Your task to perform on an android device: turn off improve location accuracy Image 0: 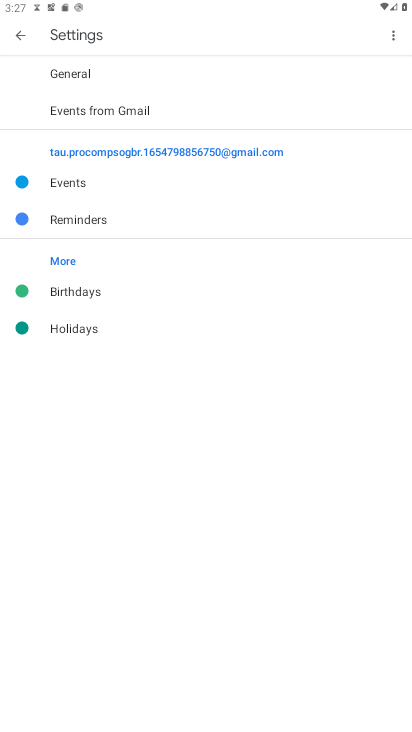
Step 0: press home button
Your task to perform on an android device: turn off improve location accuracy Image 1: 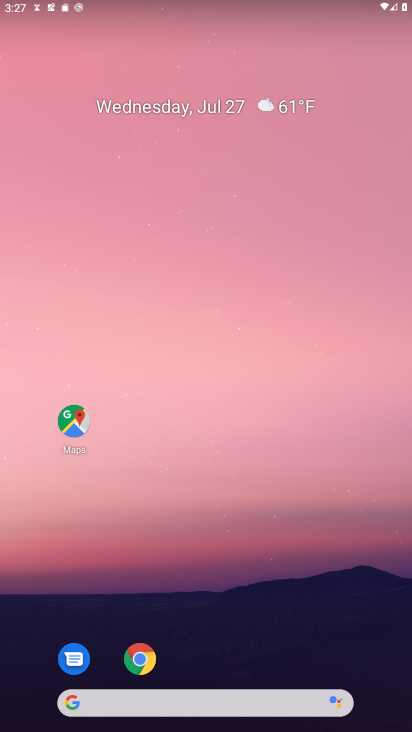
Step 1: drag from (198, 705) to (145, 175)
Your task to perform on an android device: turn off improve location accuracy Image 2: 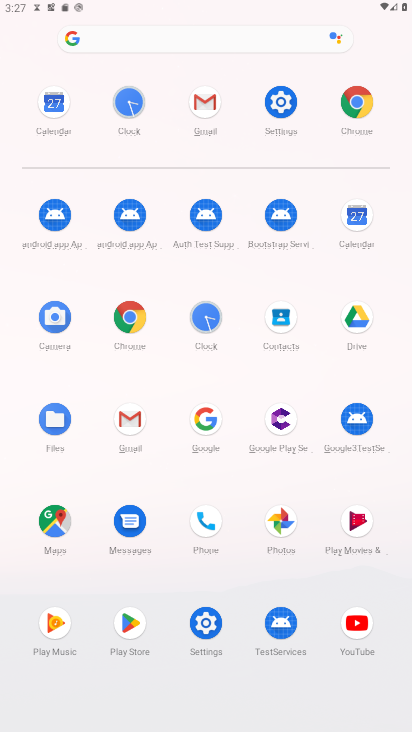
Step 2: click (201, 614)
Your task to perform on an android device: turn off improve location accuracy Image 3: 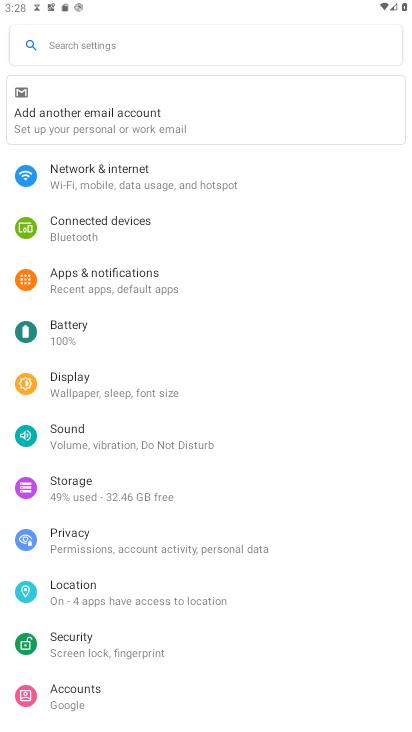
Step 3: click (70, 579)
Your task to perform on an android device: turn off improve location accuracy Image 4: 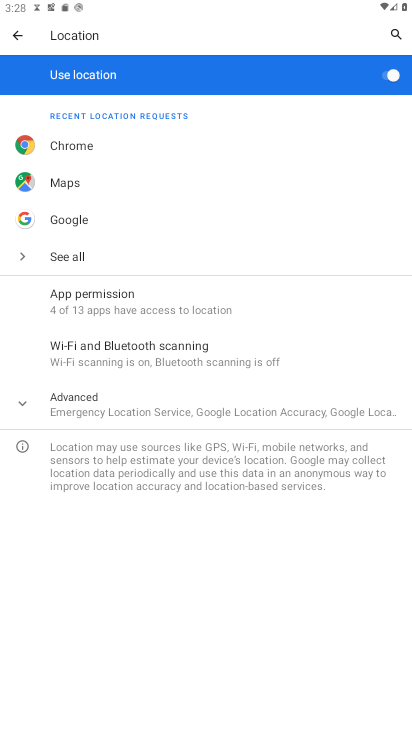
Step 4: click (79, 396)
Your task to perform on an android device: turn off improve location accuracy Image 5: 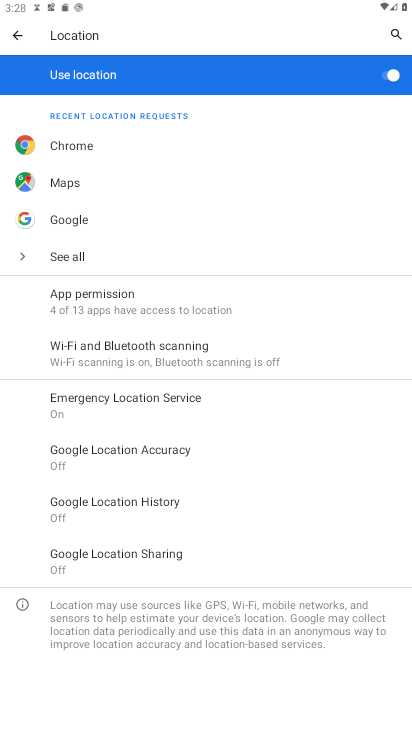
Step 5: click (162, 457)
Your task to perform on an android device: turn off improve location accuracy Image 6: 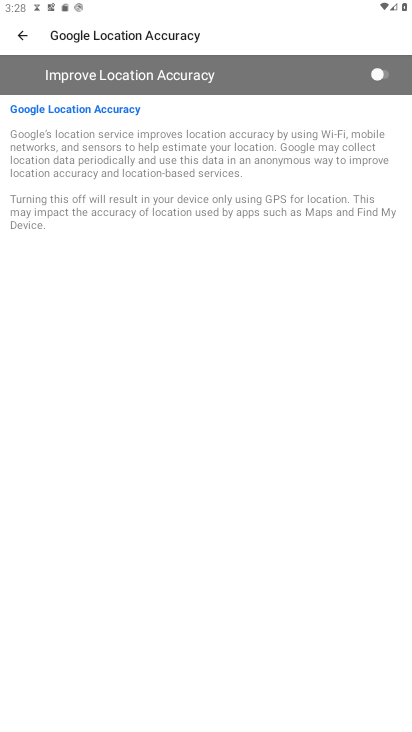
Step 6: task complete